Your task to perform on an android device: Open Yahoo.com Image 0: 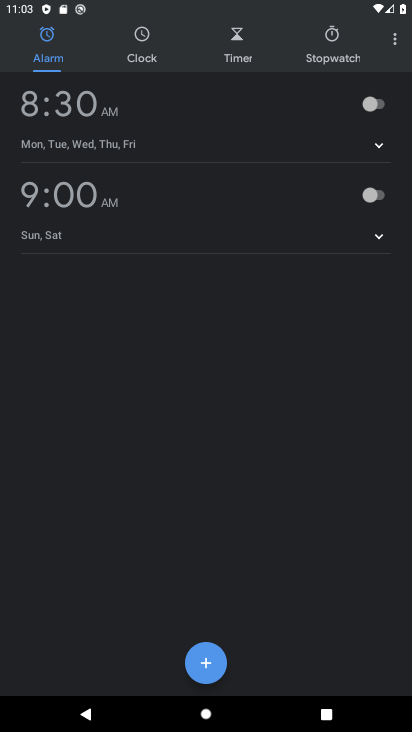
Step 0: press home button
Your task to perform on an android device: Open Yahoo.com Image 1: 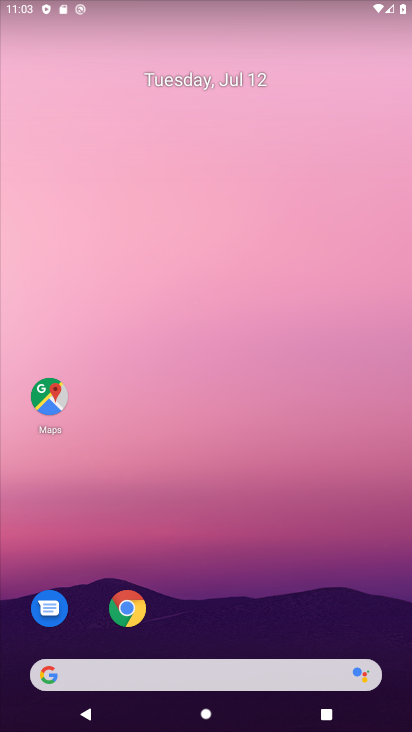
Step 1: click (131, 602)
Your task to perform on an android device: Open Yahoo.com Image 2: 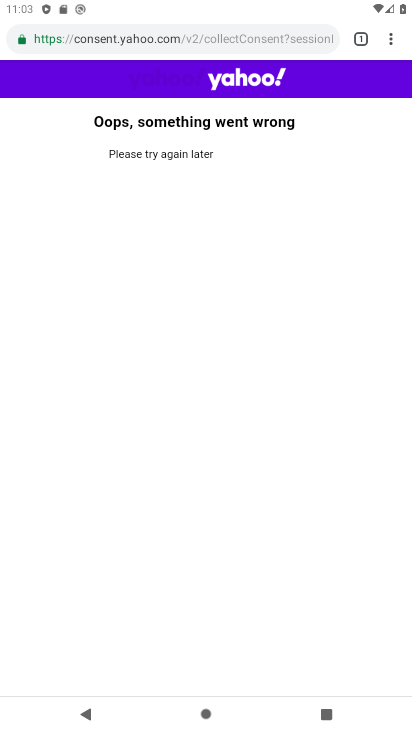
Step 2: click (354, 35)
Your task to perform on an android device: Open Yahoo.com Image 3: 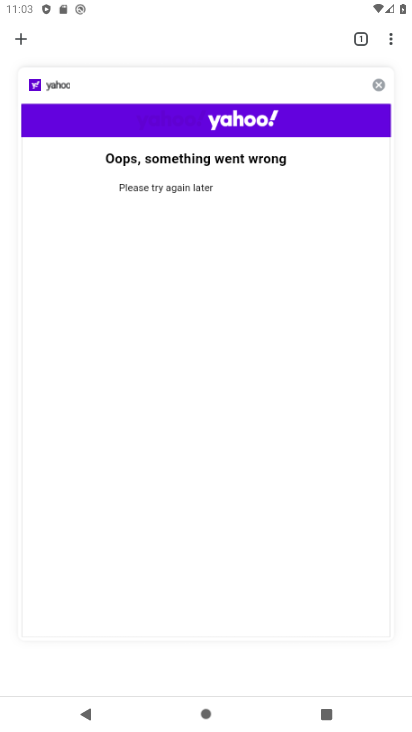
Step 3: click (27, 38)
Your task to perform on an android device: Open Yahoo.com Image 4: 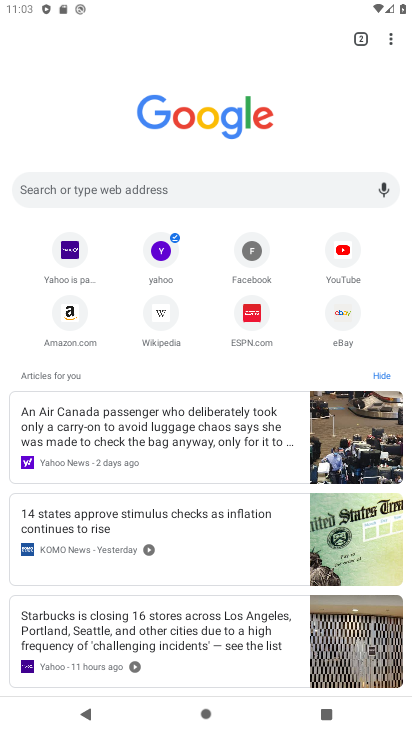
Step 4: click (159, 257)
Your task to perform on an android device: Open Yahoo.com Image 5: 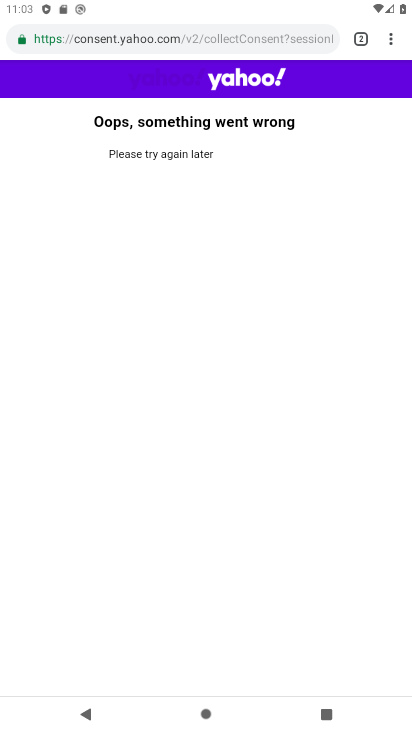
Step 5: click (362, 32)
Your task to perform on an android device: Open Yahoo.com Image 6: 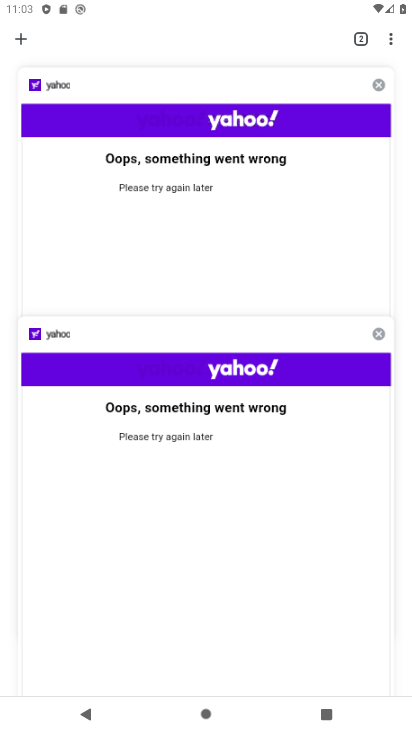
Step 6: click (26, 45)
Your task to perform on an android device: Open Yahoo.com Image 7: 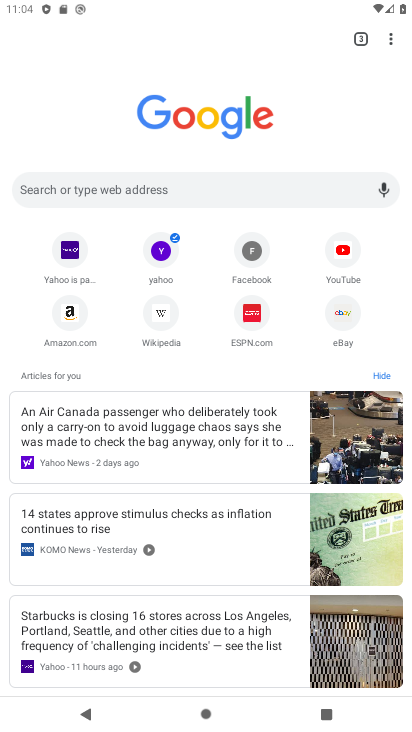
Step 7: click (84, 249)
Your task to perform on an android device: Open Yahoo.com Image 8: 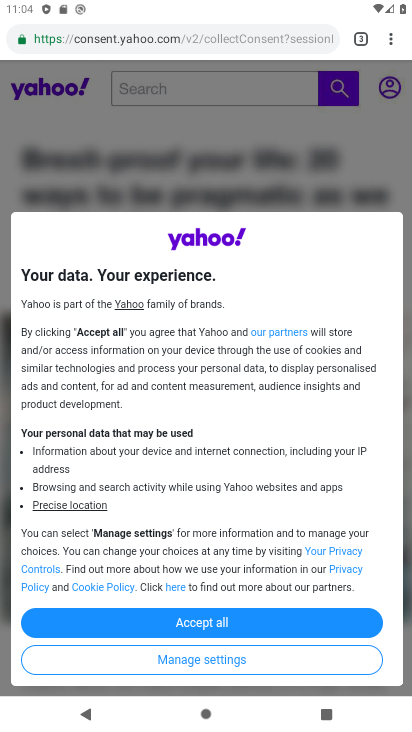
Step 8: task complete